Your task to perform on an android device: Open display settings Image 0: 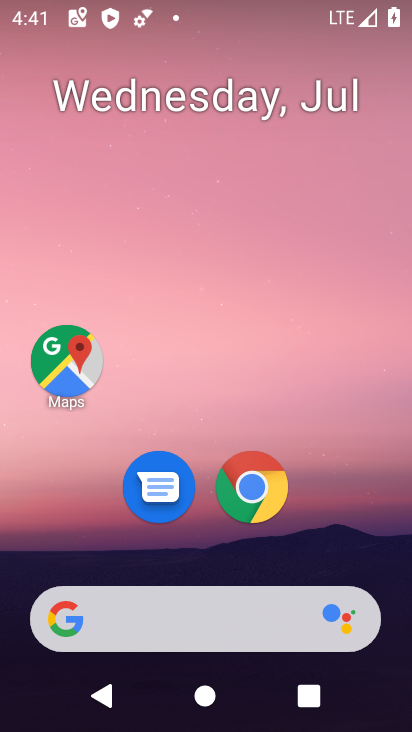
Step 0: drag from (149, 512) to (279, 78)
Your task to perform on an android device: Open display settings Image 1: 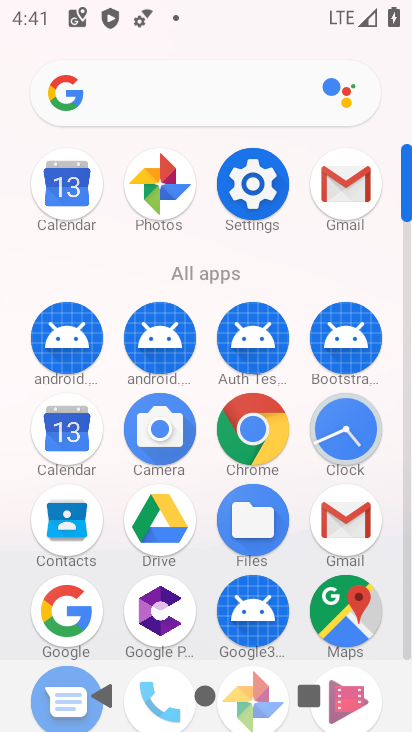
Step 1: click (245, 187)
Your task to perform on an android device: Open display settings Image 2: 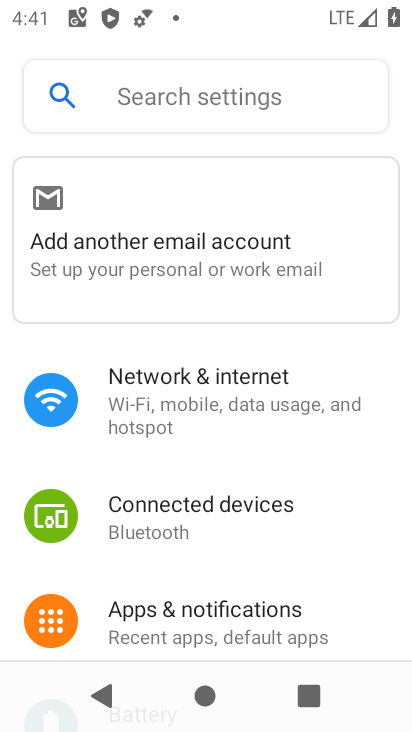
Step 2: drag from (217, 593) to (311, 116)
Your task to perform on an android device: Open display settings Image 3: 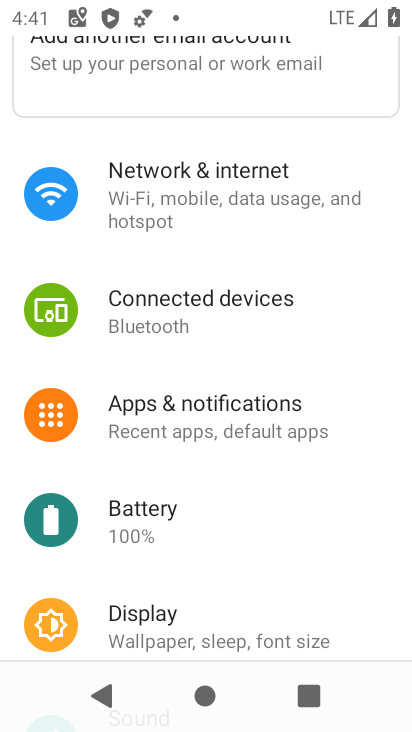
Step 3: click (164, 623)
Your task to perform on an android device: Open display settings Image 4: 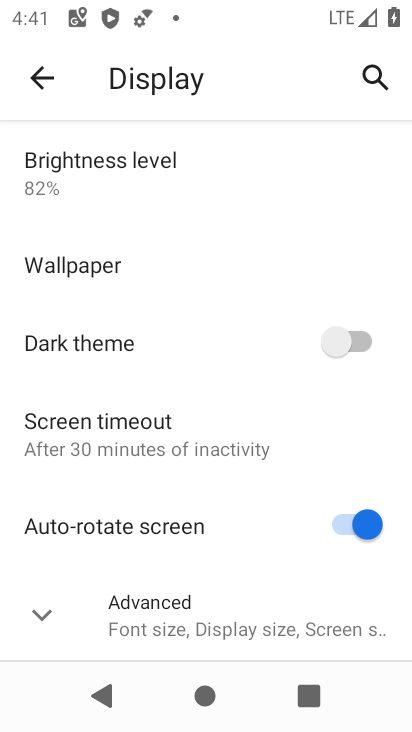
Step 4: task complete